Your task to perform on an android device: Open notification settings Image 0: 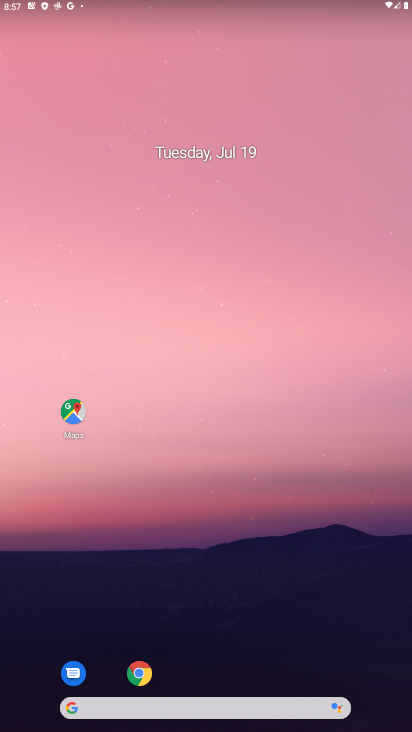
Step 0: drag from (244, 668) to (117, 198)
Your task to perform on an android device: Open notification settings Image 1: 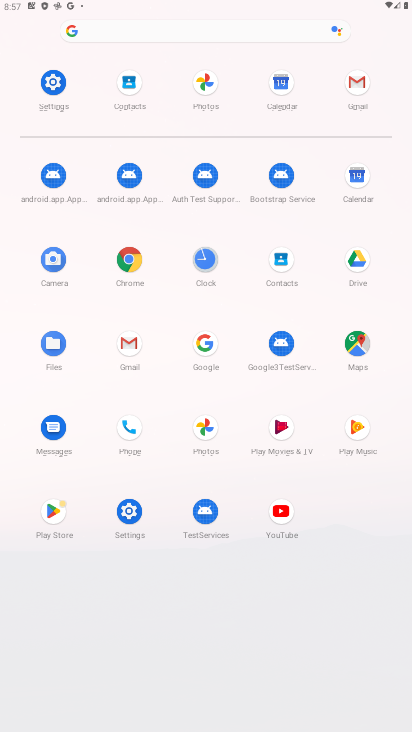
Step 1: click (58, 71)
Your task to perform on an android device: Open notification settings Image 2: 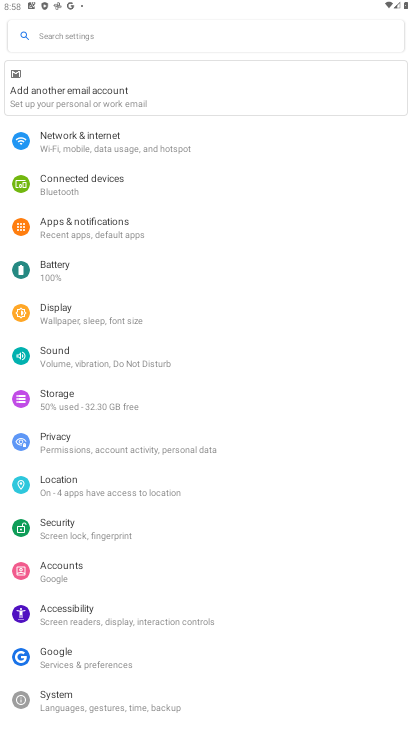
Step 2: click (145, 220)
Your task to perform on an android device: Open notification settings Image 3: 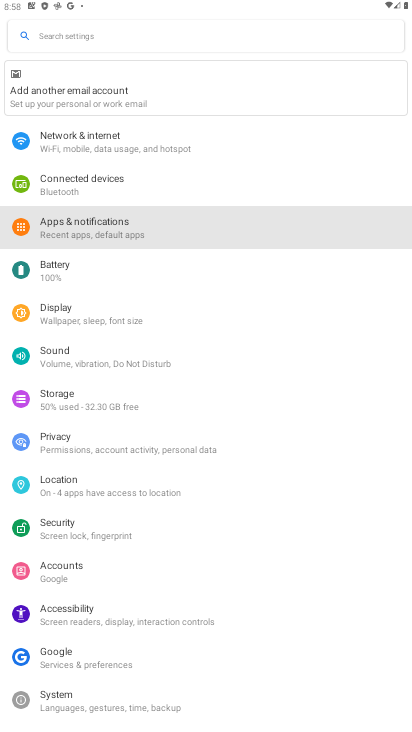
Step 3: task complete